Your task to perform on an android device: toggle show notifications on the lock screen Image 0: 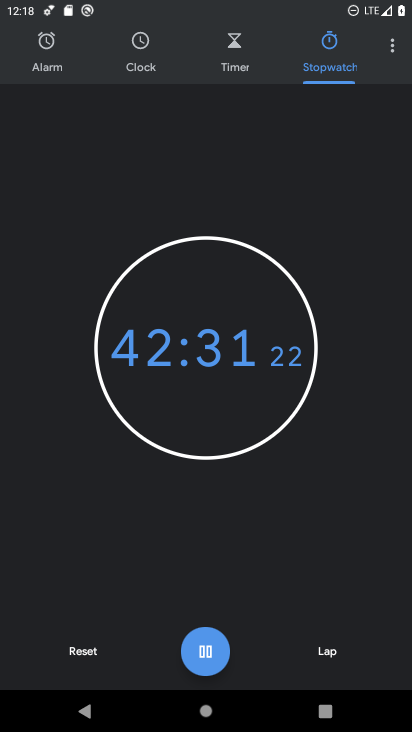
Step 0: press home button
Your task to perform on an android device: toggle show notifications on the lock screen Image 1: 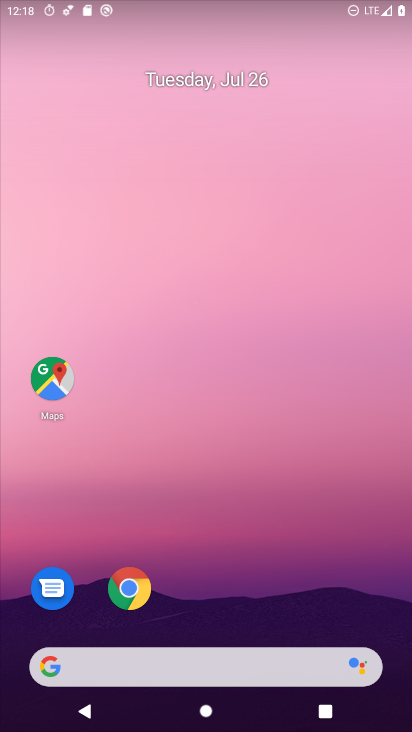
Step 1: drag from (21, 464) to (146, 70)
Your task to perform on an android device: toggle show notifications on the lock screen Image 2: 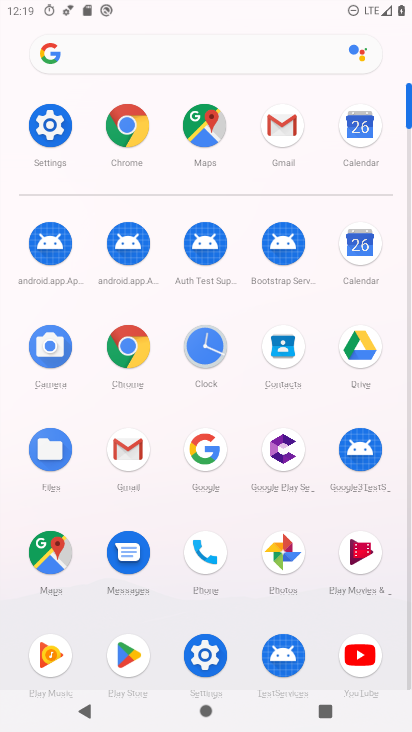
Step 2: click (208, 664)
Your task to perform on an android device: toggle show notifications on the lock screen Image 3: 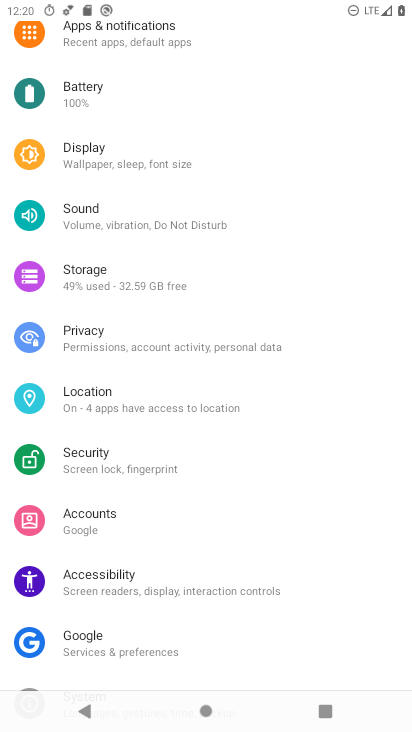
Step 3: drag from (147, 117) to (160, 503)
Your task to perform on an android device: toggle show notifications on the lock screen Image 4: 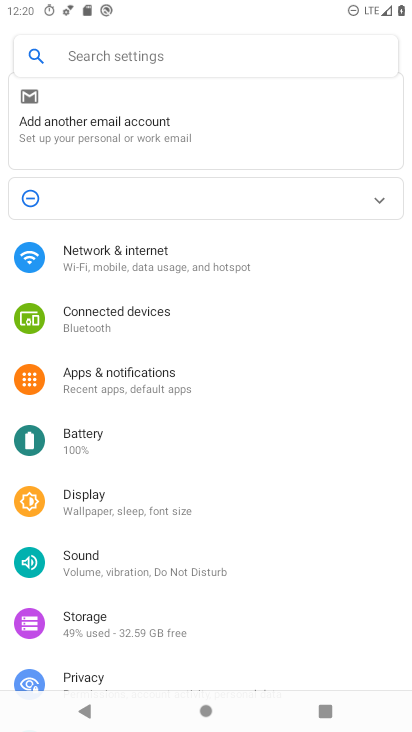
Step 4: click (160, 383)
Your task to perform on an android device: toggle show notifications on the lock screen Image 5: 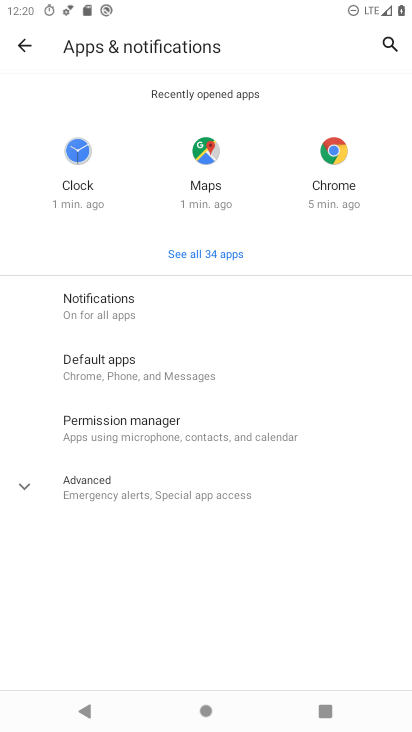
Step 5: click (152, 300)
Your task to perform on an android device: toggle show notifications on the lock screen Image 6: 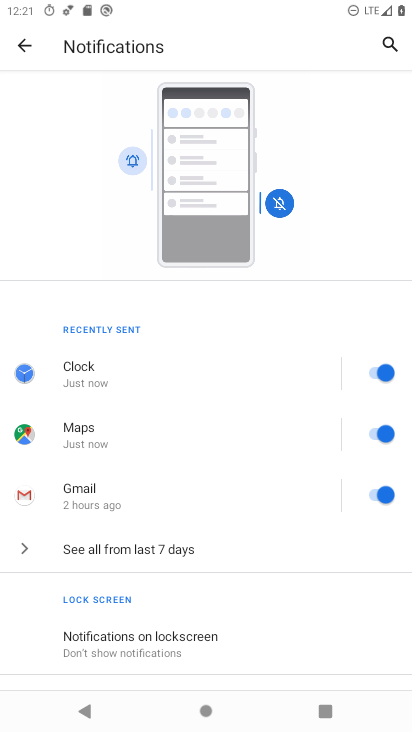
Step 6: click (182, 643)
Your task to perform on an android device: toggle show notifications on the lock screen Image 7: 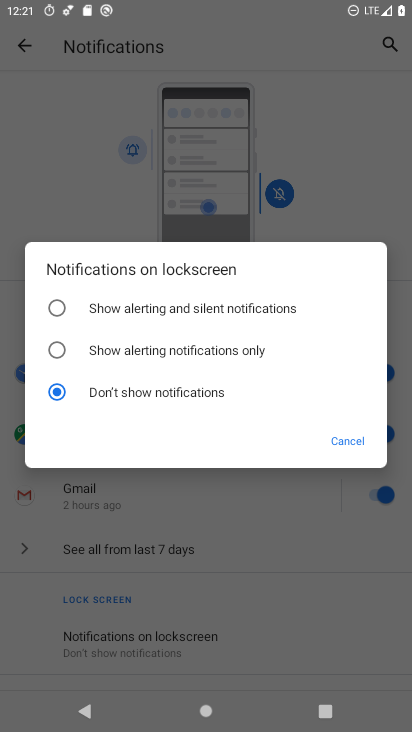
Step 7: click (169, 308)
Your task to perform on an android device: toggle show notifications on the lock screen Image 8: 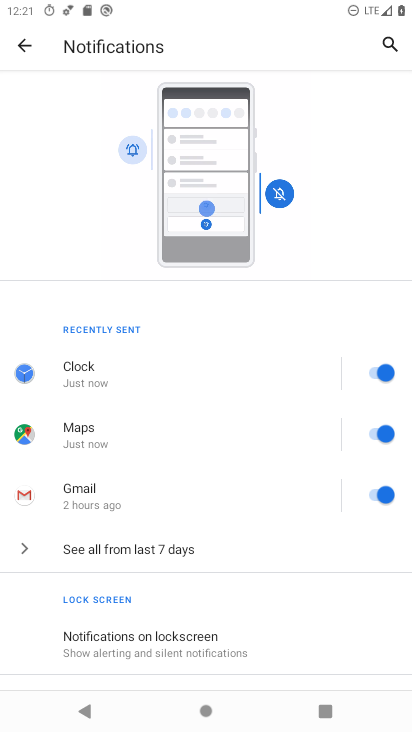
Step 8: task complete